Your task to perform on an android device: turn off notifications settings in the gmail app Image 0: 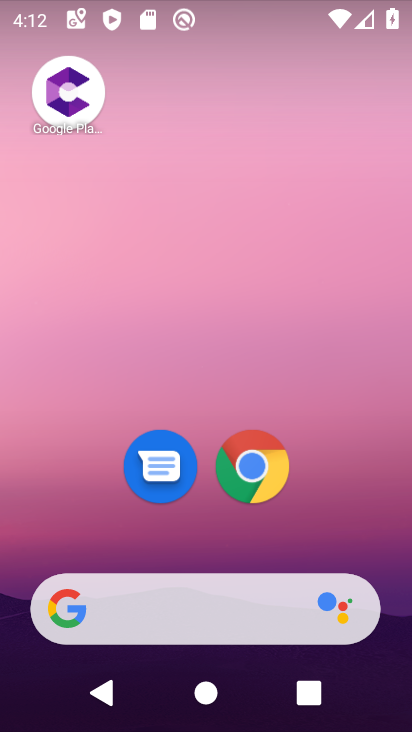
Step 0: drag from (400, 636) to (358, 63)
Your task to perform on an android device: turn off notifications settings in the gmail app Image 1: 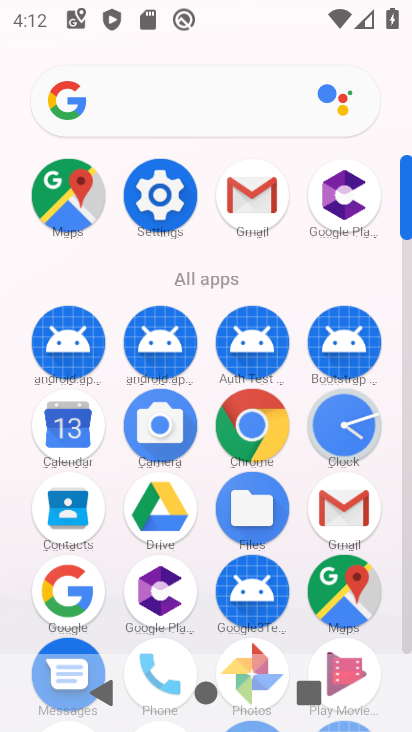
Step 1: click (402, 634)
Your task to perform on an android device: turn off notifications settings in the gmail app Image 2: 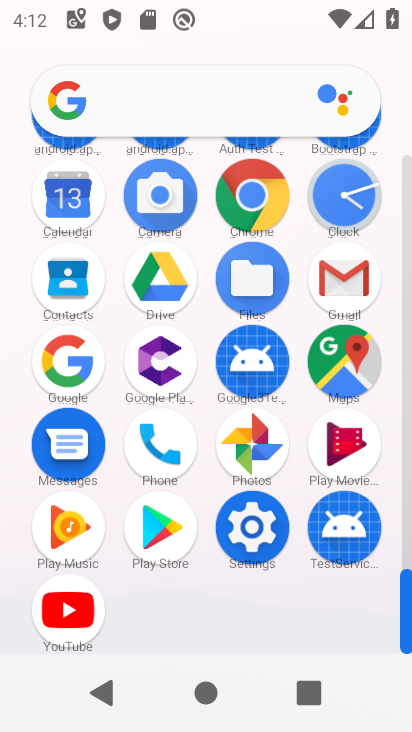
Step 2: click (343, 270)
Your task to perform on an android device: turn off notifications settings in the gmail app Image 3: 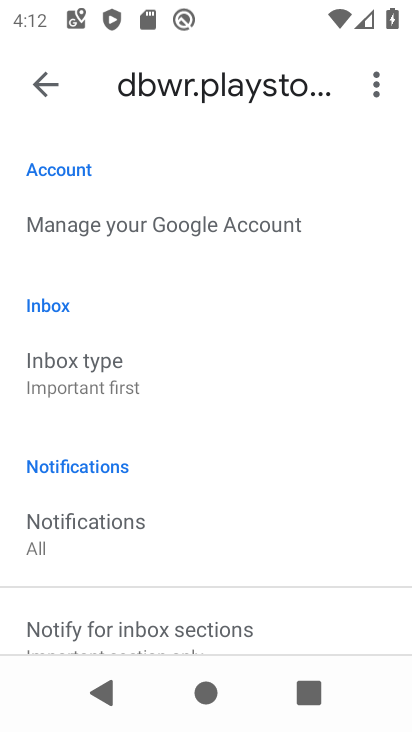
Step 3: drag from (277, 615) to (302, 175)
Your task to perform on an android device: turn off notifications settings in the gmail app Image 4: 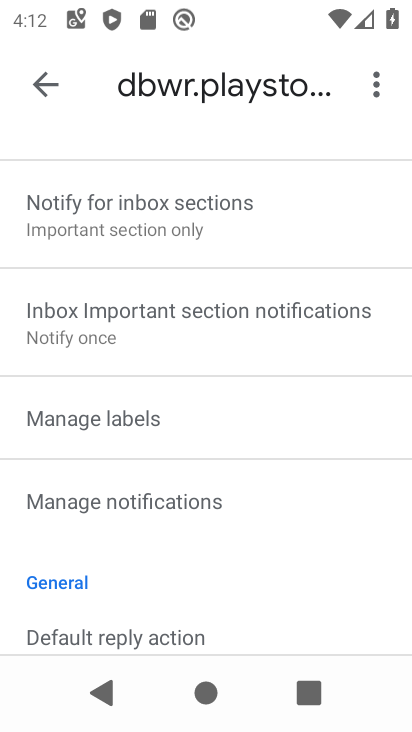
Step 4: click (114, 501)
Your task to perform on an android device: turn off notifications settings in the gmail app Image 5: 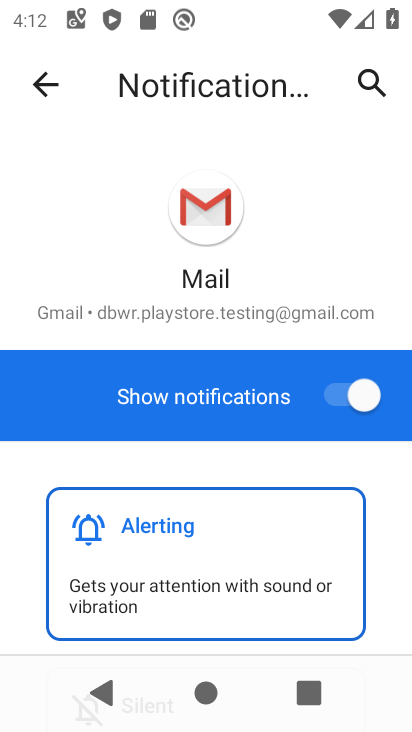
Step 5: click (336, 392)
Your task to perform on an android device: turn off notifications settings in the gmail app Image 6: 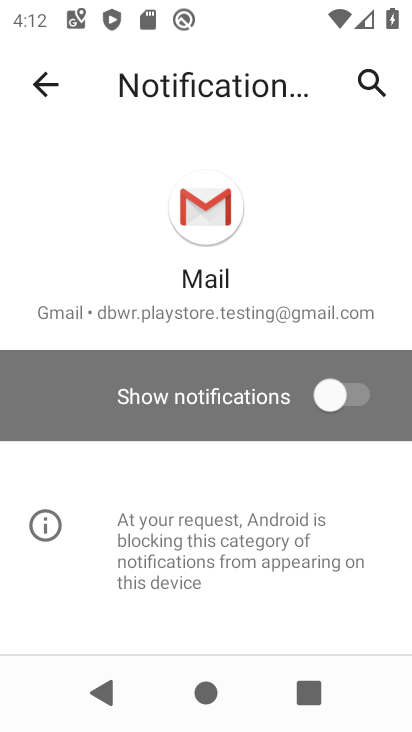
Step 6: task complete